Your task to perform on an android device: Open the stopwatch Image 0: 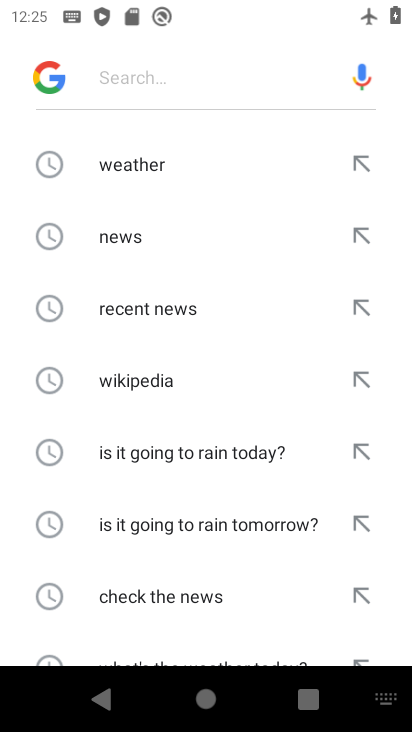
Step 0: press home button
Your task to perform on an android device: Open the stopwatch Image 1: 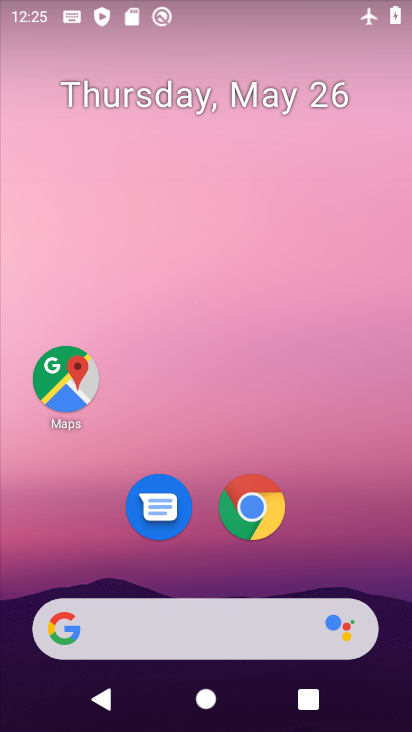
Step 1: drag from (212, 575) to (237, 203)
Your task to perform on an android device: Open the stopwatch Image 2: 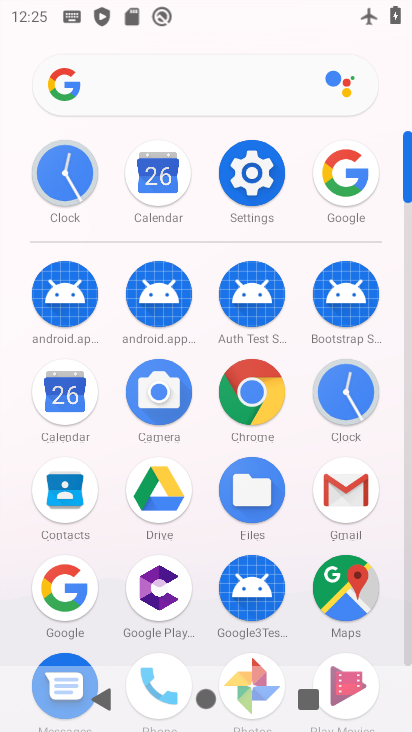
Step 2: click (365, 389)
Your task to perform on an android device: Open the stopwatch Image 3: 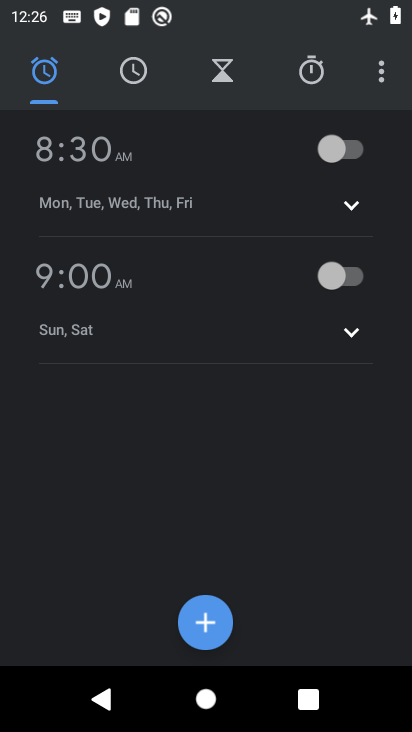
Step 3: click (304, 82)
Your task to perform on an android device: Open the stopwatch Image 4: 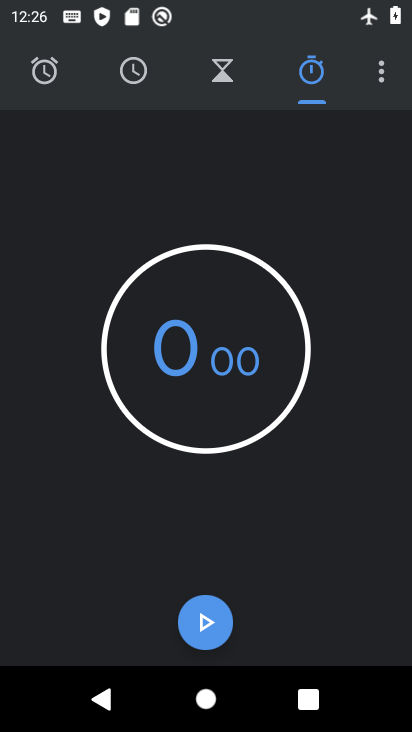
Step 4: task complete